Your task to perform on an android device: What's the weather today? Image 0: 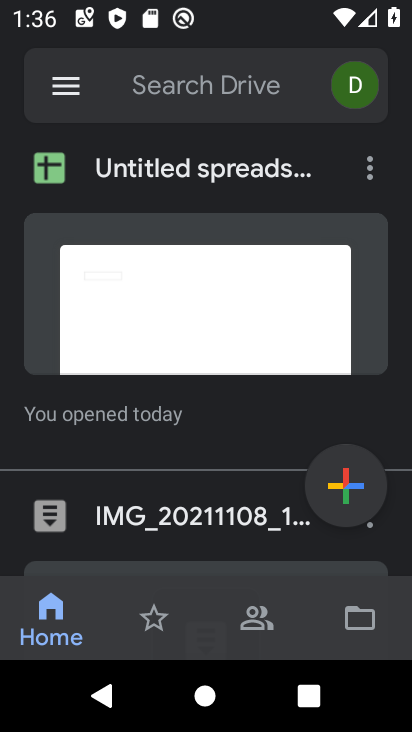
Step 0: press home button
Your task to perform on an android device: What's the weather today? Image 1: 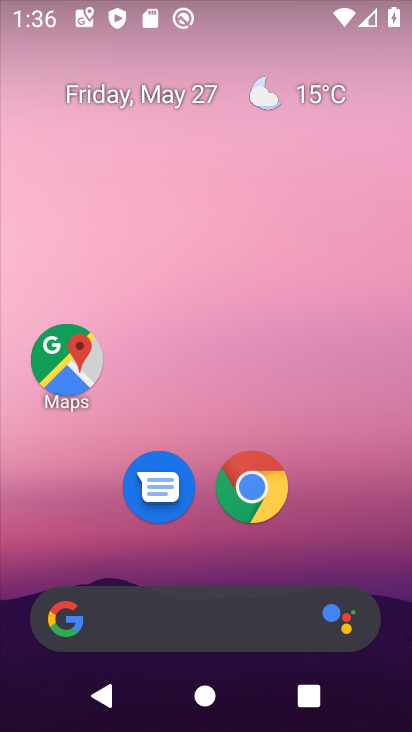
Step 1: click (194, 633)
Your task to perform on an android device: What's the weather today? Image 2: 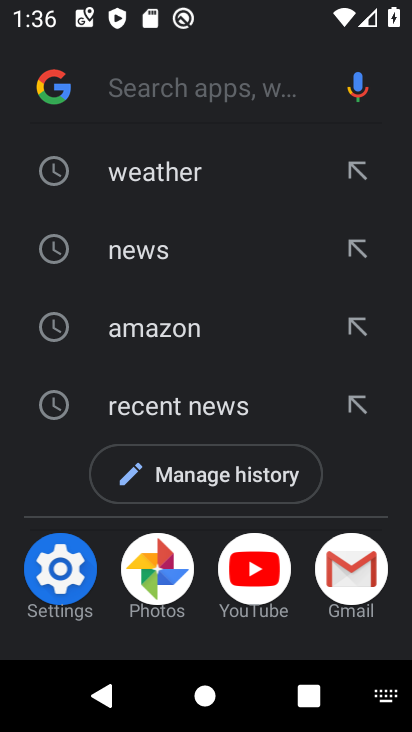
Step 2: click (187, 185)
Your task to perform on an android device: What's the weather today? Image 3: 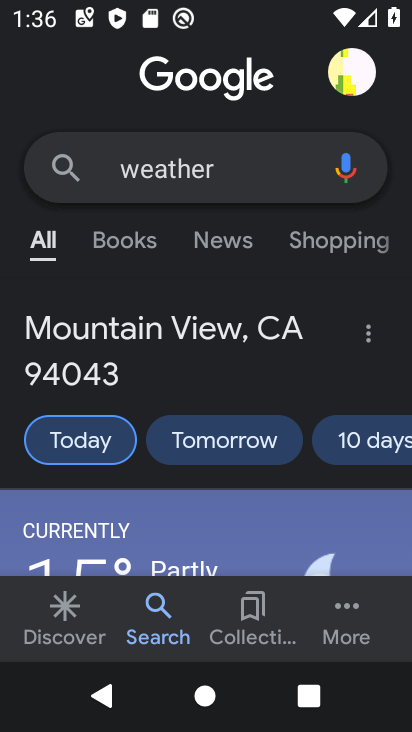
Step 3: task complete